Your task to perform on an android device: check data usage Image 0: 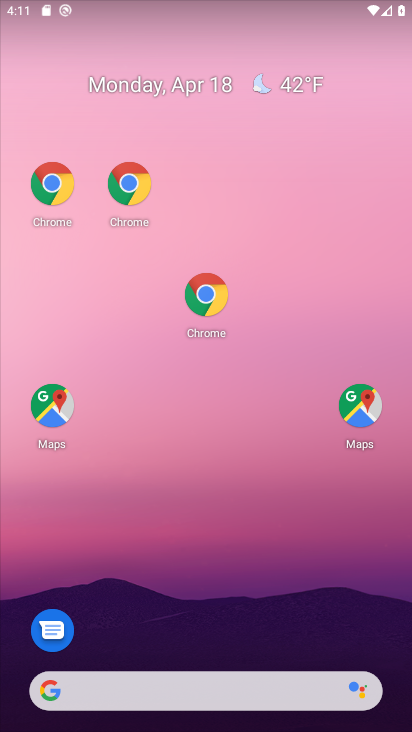
Step 0: click (174, 9)
Your task to perform on an android device: check data usage Image 1: 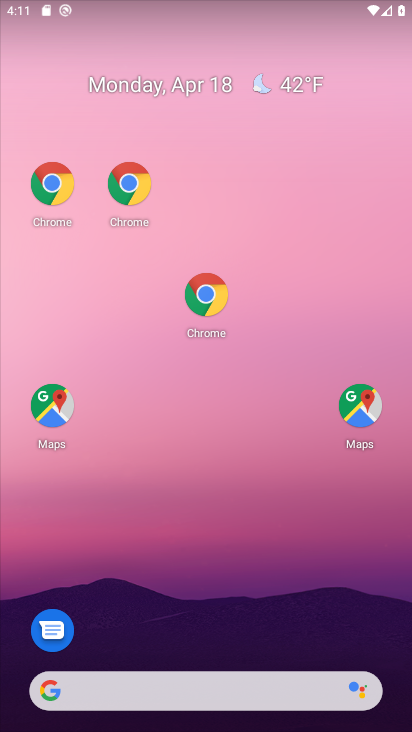
Step 1: drag from (239, 564) to (70, 78)
Your task to perform on an android device: check data usage Image 2: 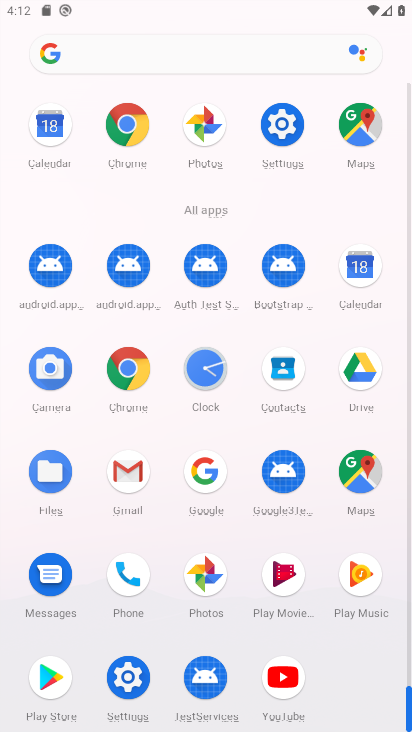
Step 2: click (282, 121)
Your task to perform on an android device: check data usage Image 3: 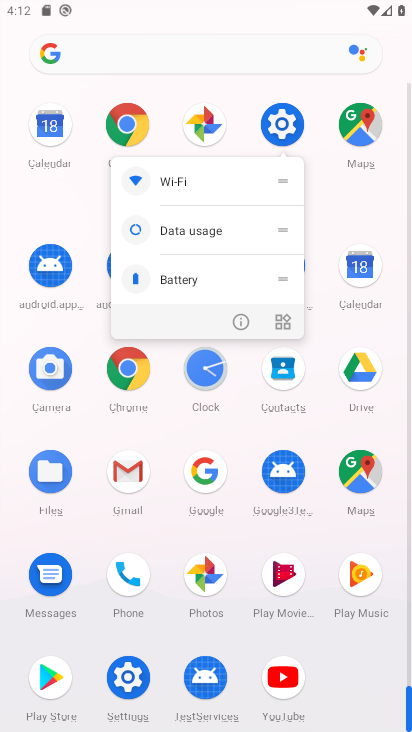
Step 3: click (282, 121)
Your task to perform on an android device: check data usage Image 4: 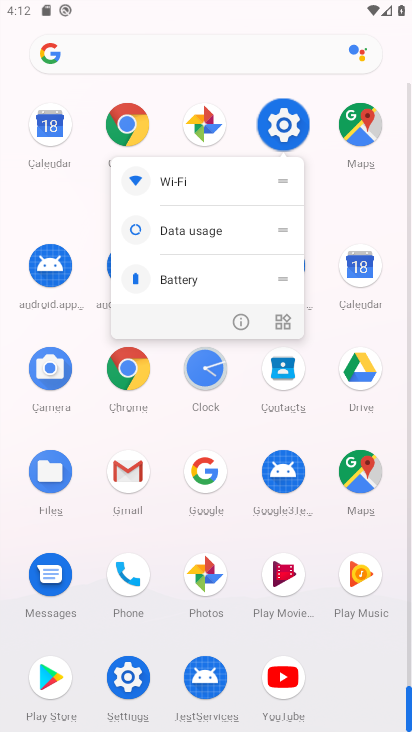
Step 4: click (282, 121)
Your task to perform on an android device: check data usage Image 5: 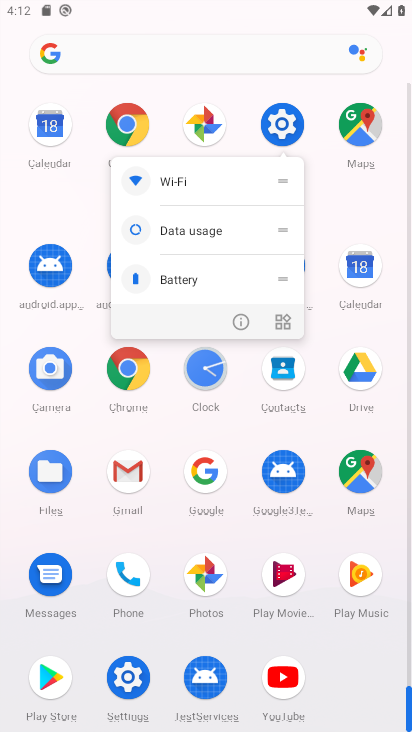
Step 5: click (282, 121)
Your task to perform on an android device: check data usage Image 6: 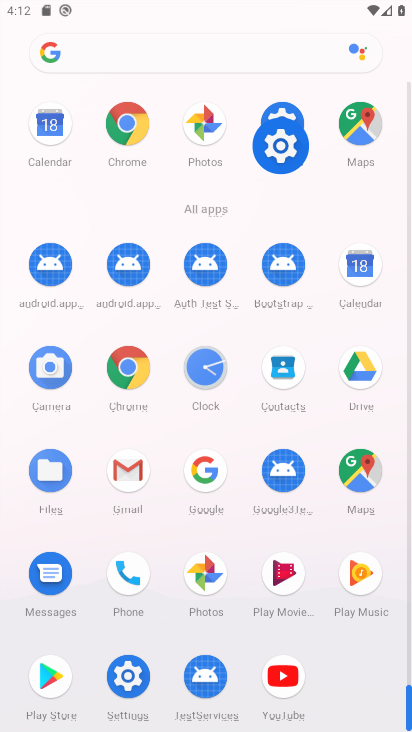
Step 6: click (280, 121)
Your task to perform on an android device: check data usage Image 7: 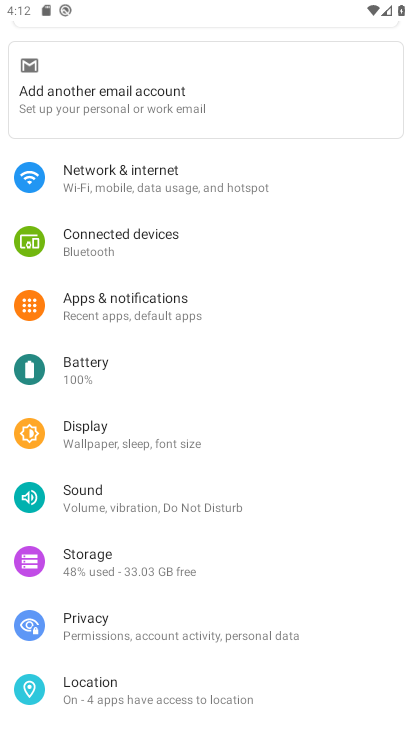
Step 7: click (154, 175)
Your task to perform on an android device: check data usage Image 8: 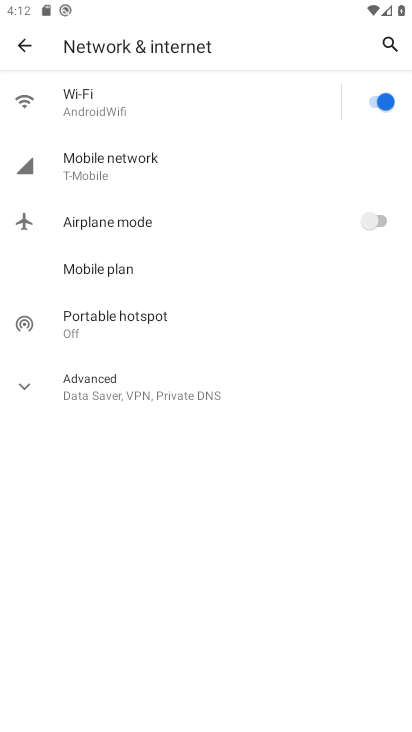
Step 8: click (22, 46)
Your task to perform on an android device: check data usage Image 9: 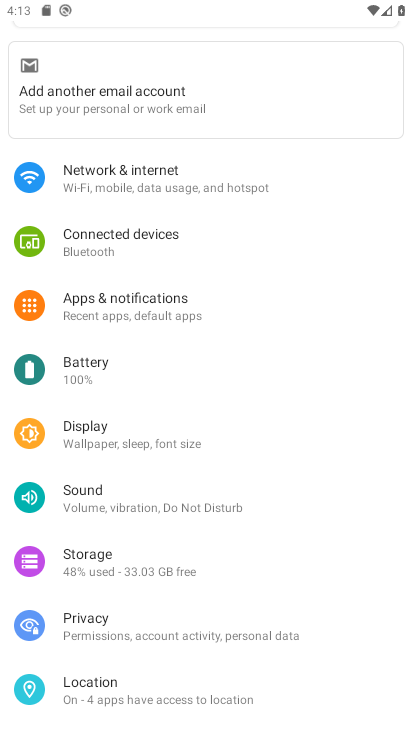
Step 9: click (154, 186)
Your task to perform on an android device: check data usage Image 10: 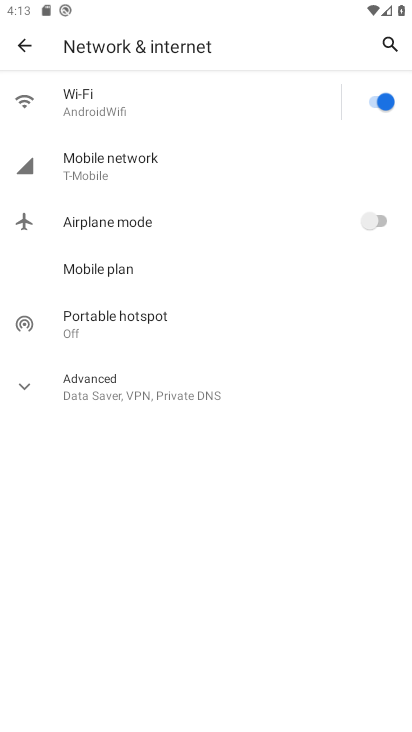
Step 10: click (19, 45)
Your task to perform on an android device: check data usage Image 11: 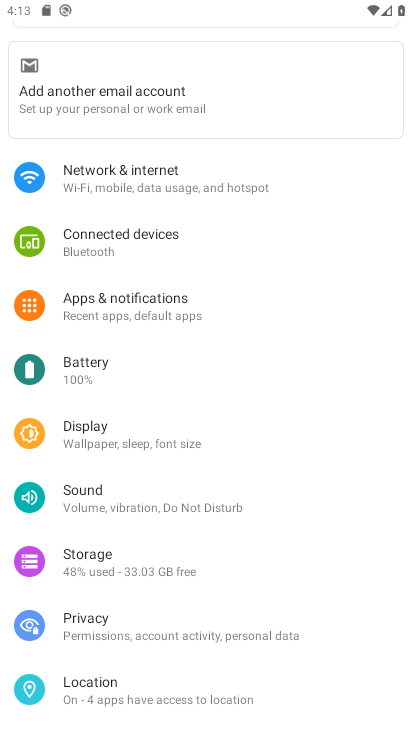
Step 11: task complete